Your task to perform on an android device: see creations saved in the google photos Image 0: 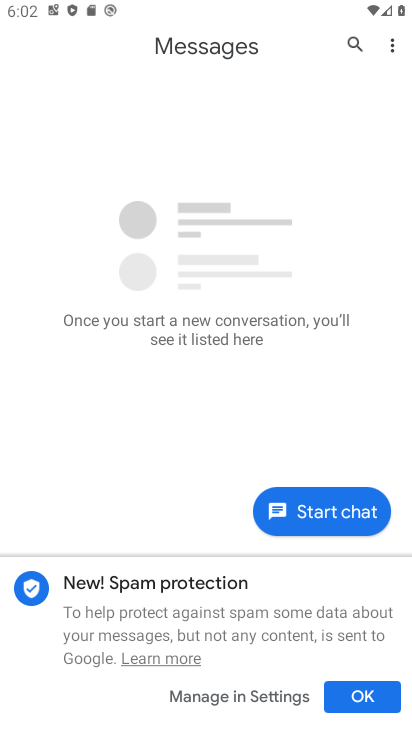
Step 0: press back button
Your task to perform on an android device: see creations saved in the google photos Image 1: 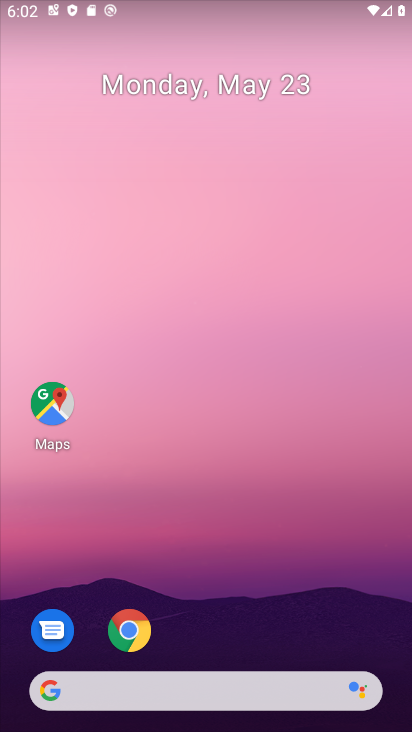
Step 1: drag from (292, 604) to (266, 0)
Your task to perform on an android device: see creations saved in the google photos Image 2: 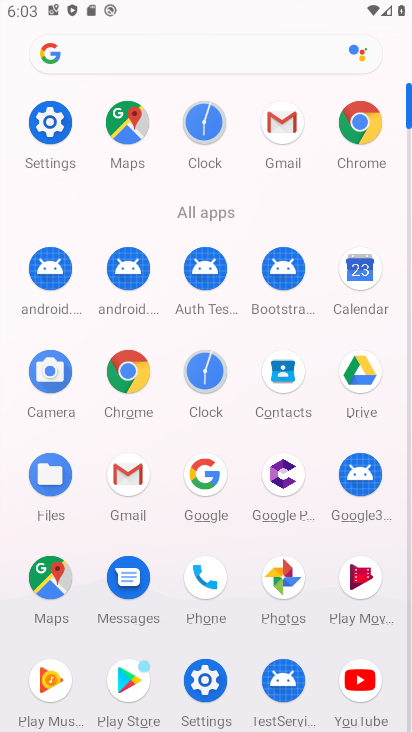
Step 2: drag from (27, 584) to (32, 184)
Your task to perform on an android device: see creations saved in the google photos Image 3: 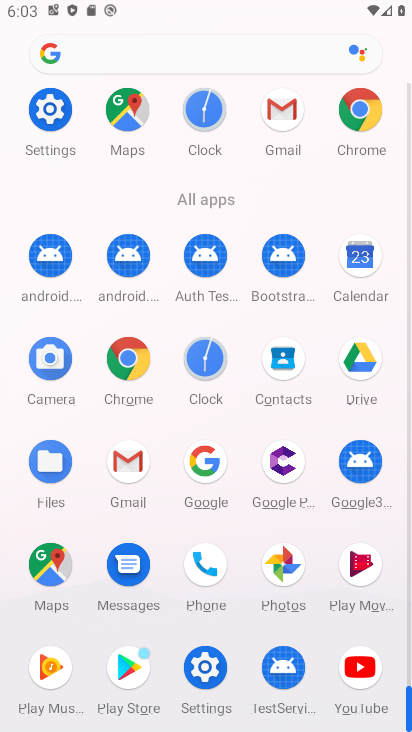
Step 3: drag from (3, 586) to (7, 244)
Your task to perform on an android device: see creations saved in the google photos Image 4: 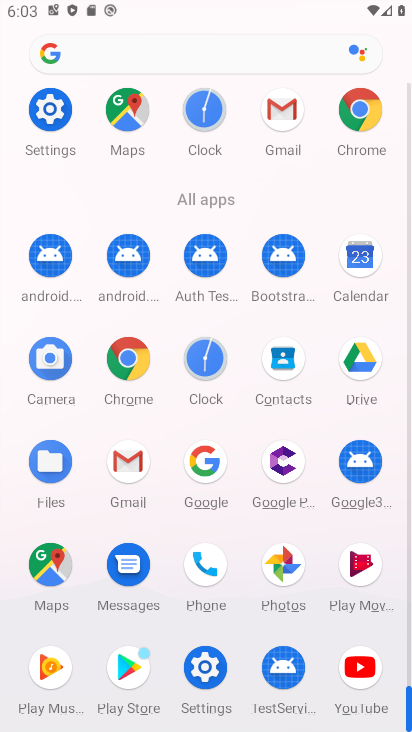
Step 4: click (280, 562)
Your task to perform on an android device: see creations saved in the google photos Image 5: 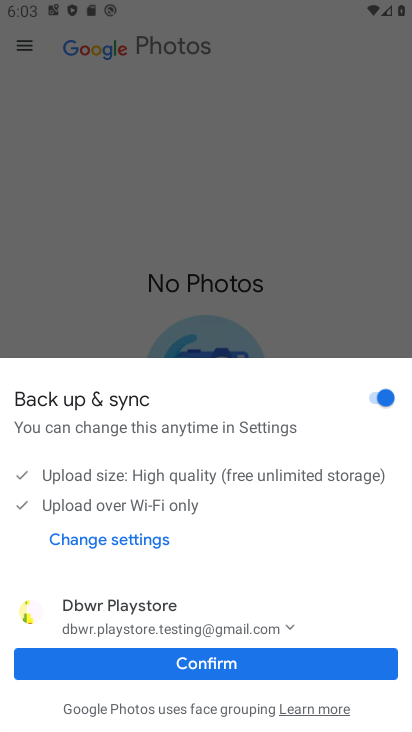
Step 5: click (230, 661)
Your task to perform on an android device: see creations saved in the google photos Image 6: 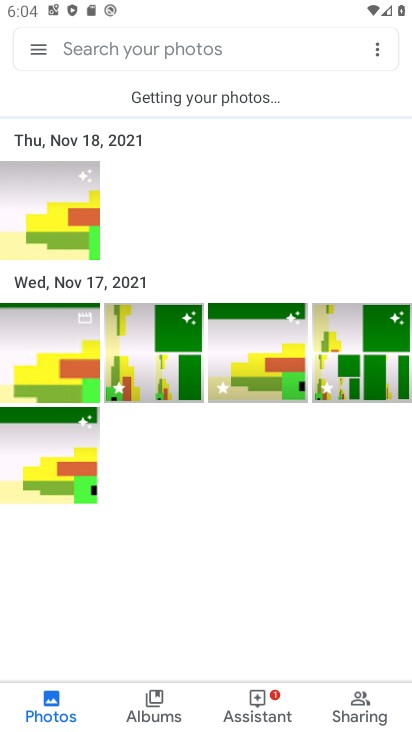
Step 6: task complete